Your task to perform on an android device: clear all cookies in the chrome app Image 0: 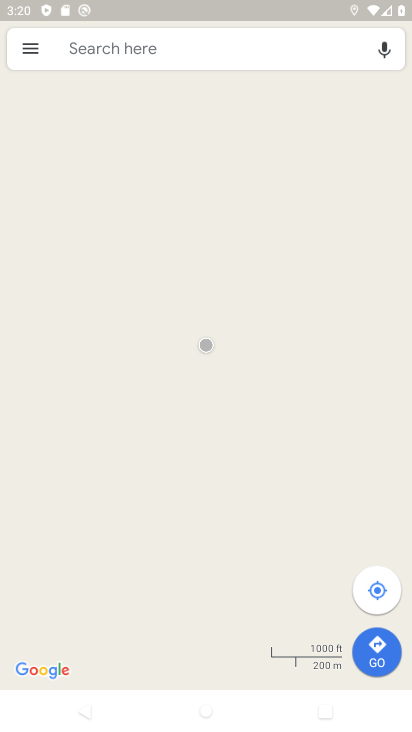
Step 0: press home button
Your task to perform on an android device: clear all cookies in the chrome app Image 1: 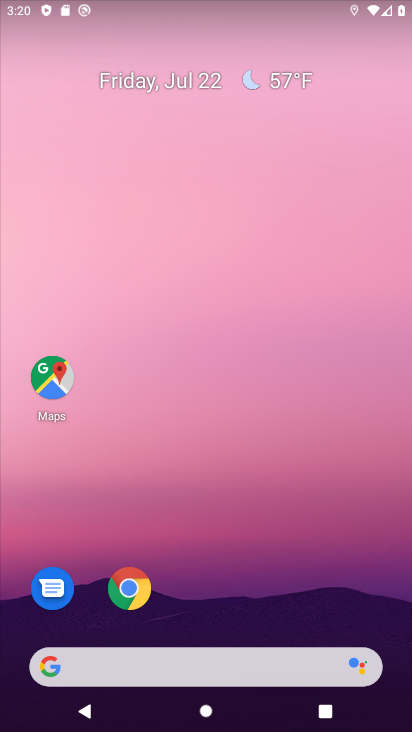
Step 1: drag from (208, 662) to (264, 79)
Your task to perform on an android device: clear all cookies in the chrome app Image 2: 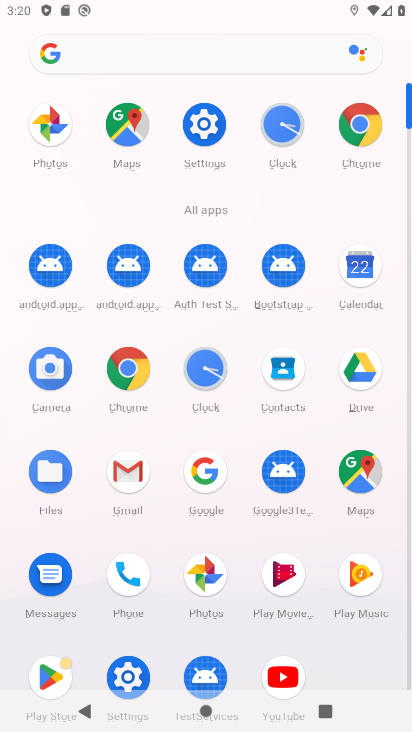
Step 2: click (102, 350)
Your task to perform on an android device: clear all cookies in the chrome app Image 3: 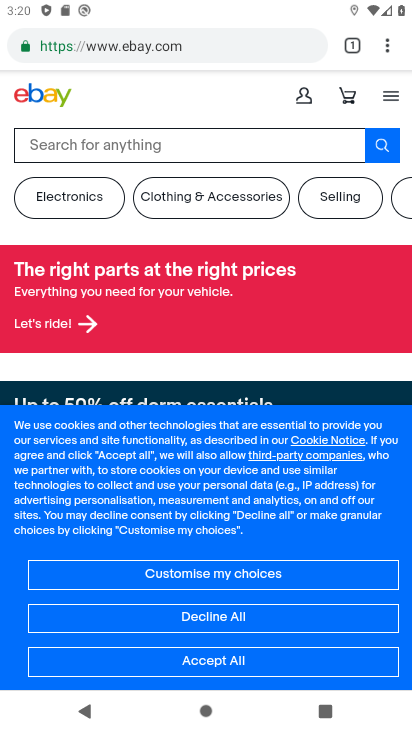
Step 3: click (384, 49)
Your task to perform on an android device: clear all cookies in the chrome app Image 4: 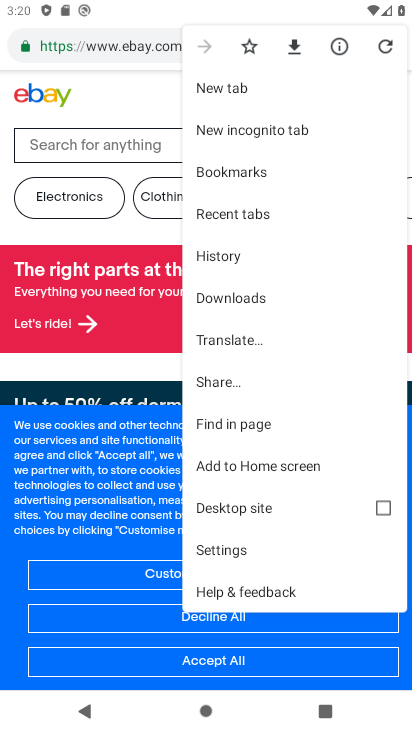
Step 4: click (238, 549)
Your task to perform on an android device: clear all cookies in the chrome app Image 5: 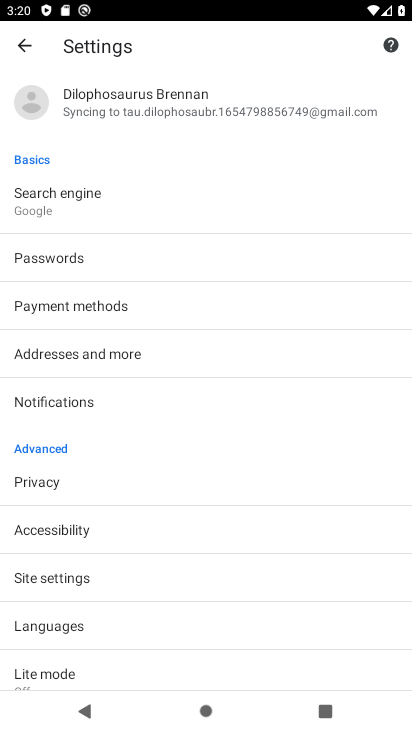
Step 5: drag from (101, 593) to (82, 314)
Your task to perform on an android device: clear all cookies in the chrome app Image 6: 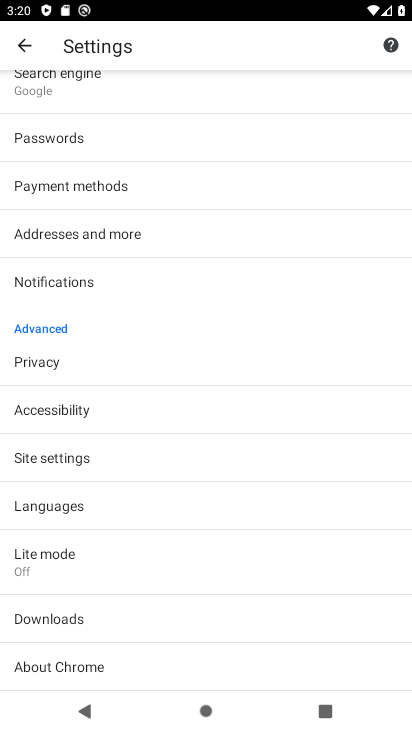
Step 6: click (54, 449)
Your task to perform on an android device: clear all cookies in the chrome app Image 7: 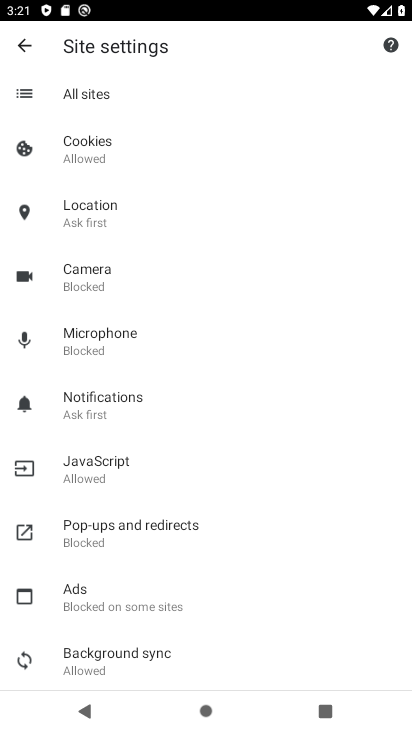
Step 7: click (87, 156)
Your task to perform on an android device: clear all cookies in the chrome app Image 8: 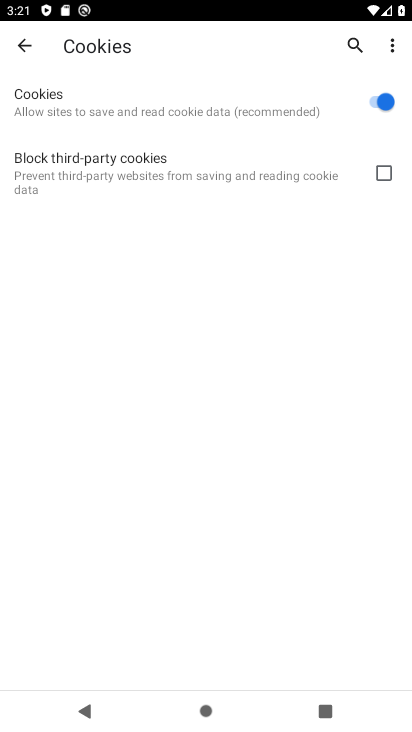
Step 8: click (19, 47)
Your task to perform on an android device: clear all cookies in the chrome app Image 9: 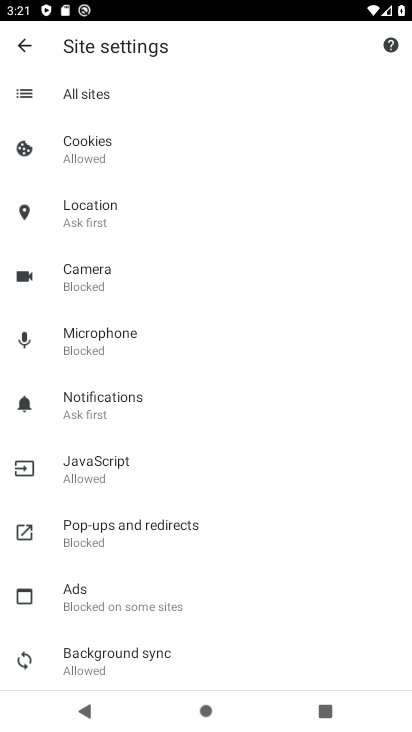
Step 9: click (32, 43)
Your task to perform on an android device: clear all cookies in the chrome app Image 10: 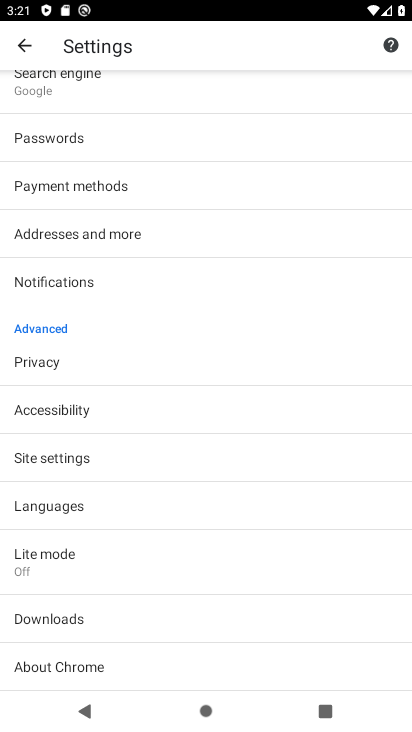
Step 10: drag from (145, 642) to (143, 233)
Your task to perform on an android device: clear all cookies in the chrome app Image 11: 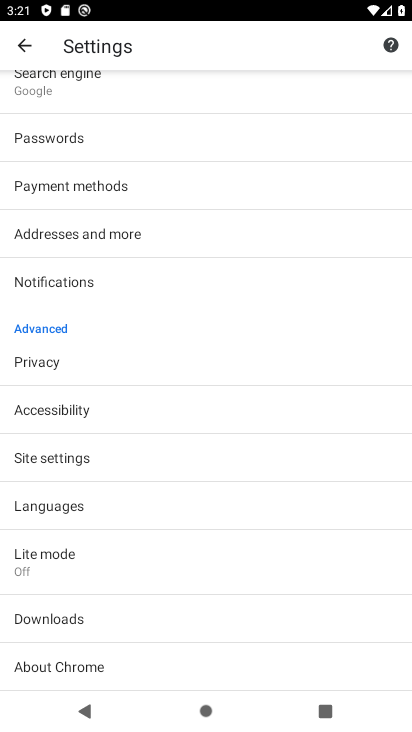
Step 11: click (36, 360)
Your task to perform on an android device: clear all cookies in the chrome app Image 12: 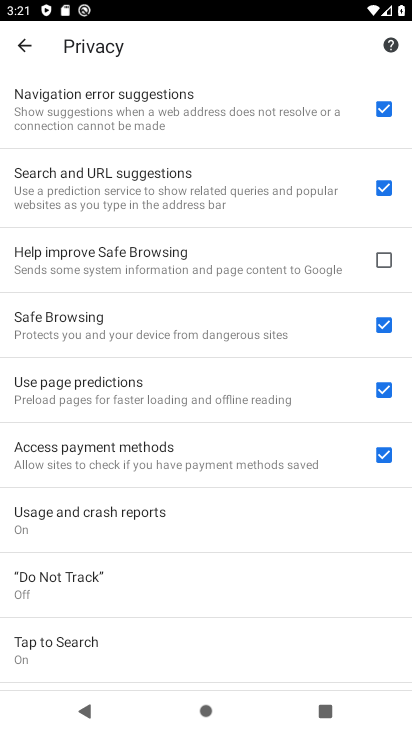
Step 12: drag from (142, 622) to (122, 199)
Your task to perform on an android device: clear all cookies in the chrome app Image 13: 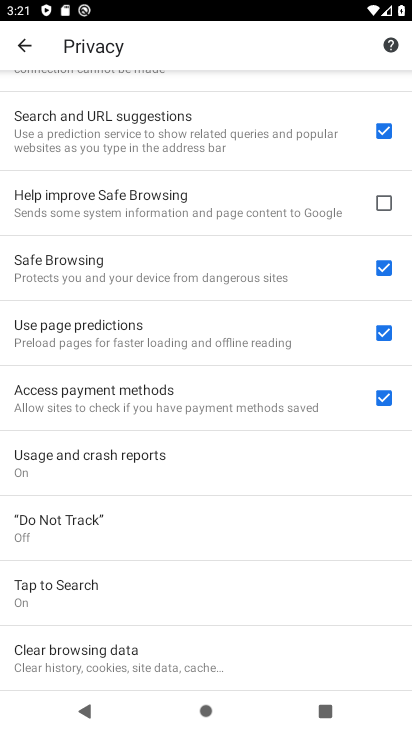
Step 13: click (115, 649)
Your task to perform on an android device: clear all cookies in the chrome app Image 14: 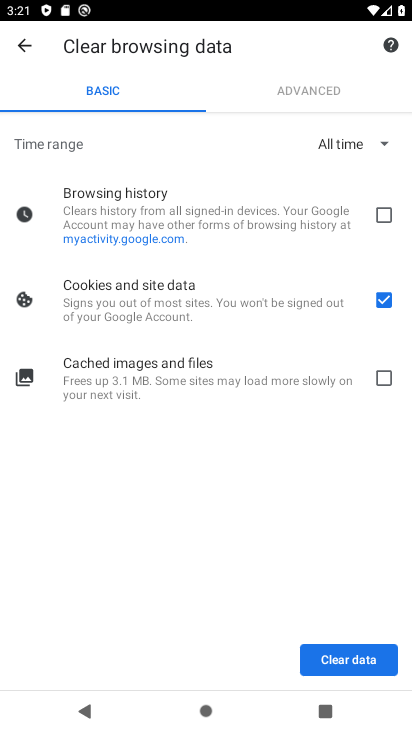
Step 14: click (356, 655)
Your task to perform on an android device: clear all cookies in the chrome app Image 15: 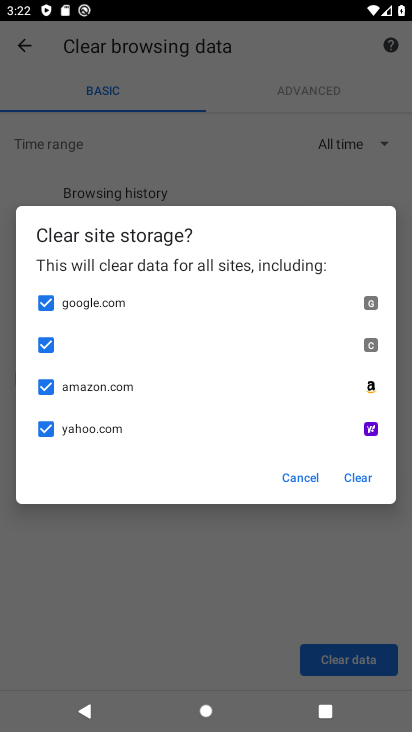
Step 15: click (343, 475)
Your task to perform on an android device: clear all cookies in the chrome app Image 16: 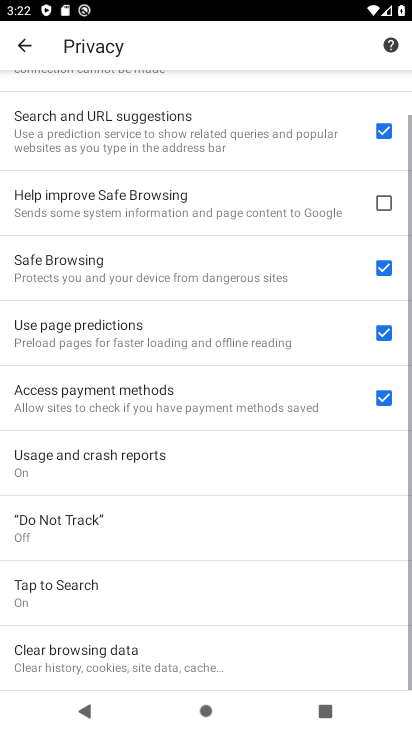
Step 16: task complete